Your task to perform on an android device: turn on priority inbox in the gmail app Image 0: 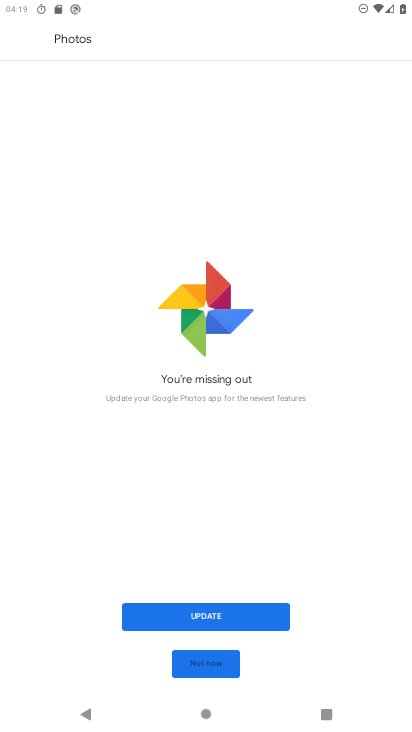
Step 0: press home button
Your task to perform on an android device: turn on priority inbox in the gmail app Image 1: 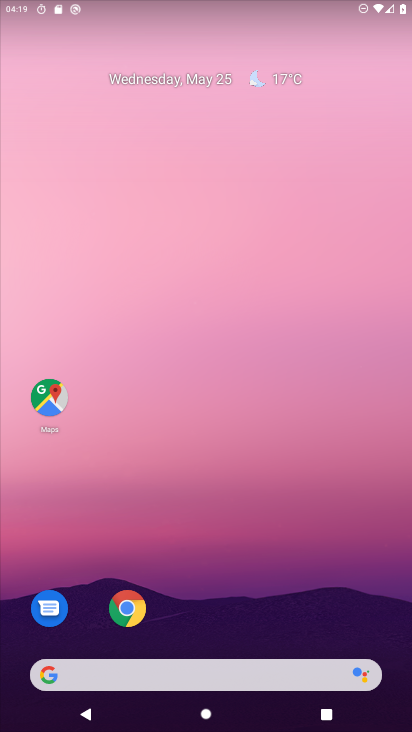
Step 1: drag from (293, 589) to (286, 149)
Your task to perform on an android device: turn on priority inbox in the gmail app Image 2: 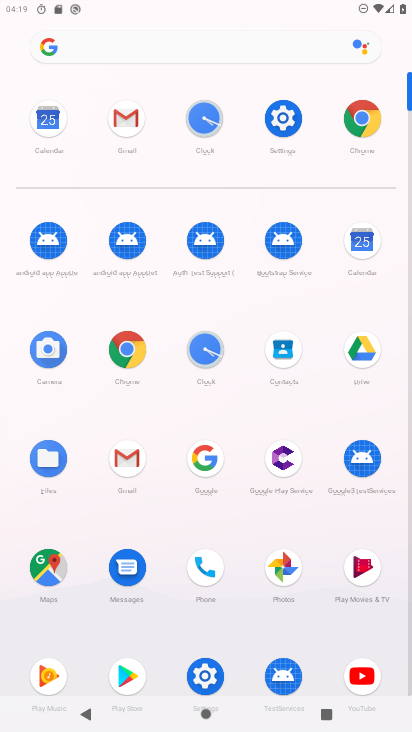
Step 2: click (124, 124)
Your task to perform on an android device: turn on priority inbox in the gmail app Image 3: 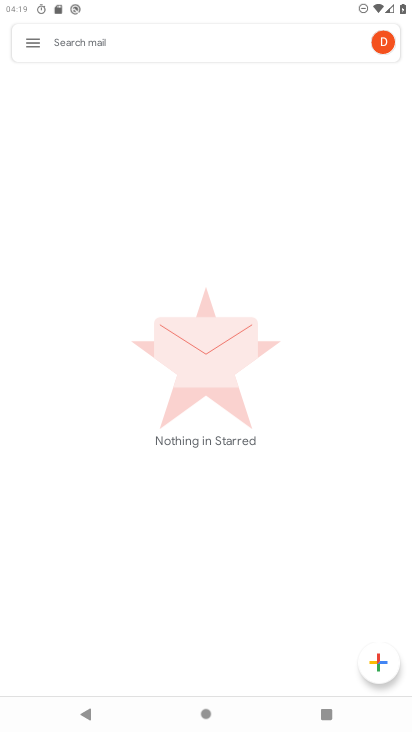
Step 3: click (26, 41)
Your task to perform on an android device: turn on priority inbox in the gmail app Image 4: 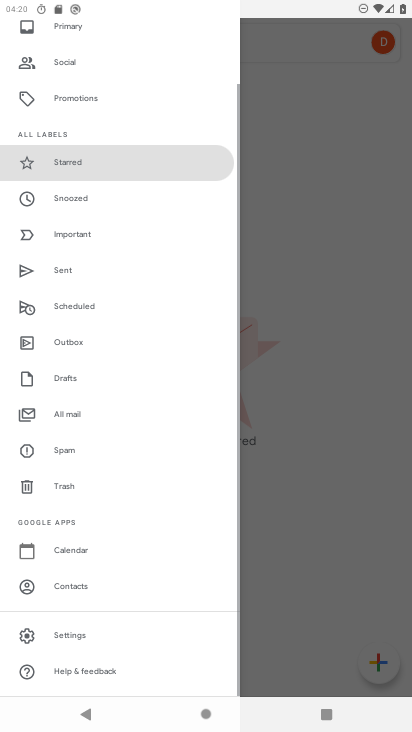
Step 4: click (109, 632)
Your task to perform on an android device: turn on priority inbox in the gmail app Image 5: 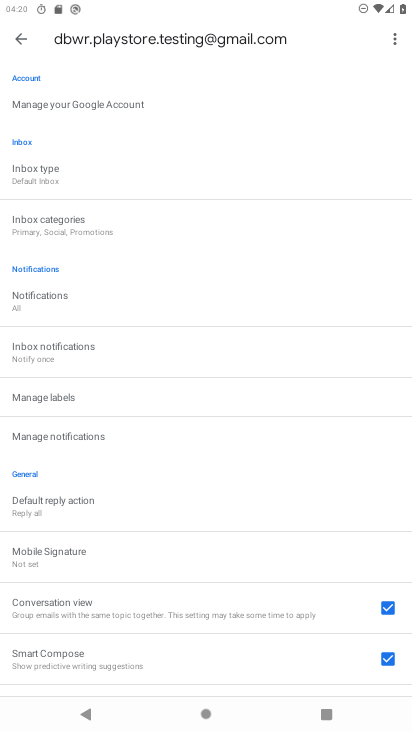
Step 5: drag from (124, 189) to (136, 535)
Your task to perform on an android device: turn on priority inbox in the gmail app Image 6: 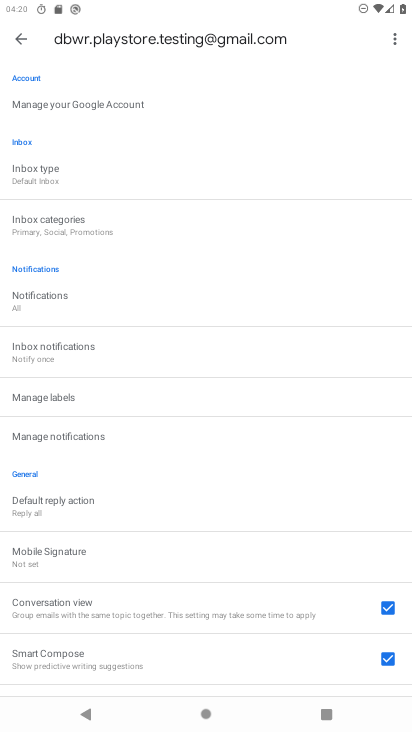
Step 6: click (88, 230)
Your task to perform on an android device: turn on priority inbox in the gmail app Image 7: 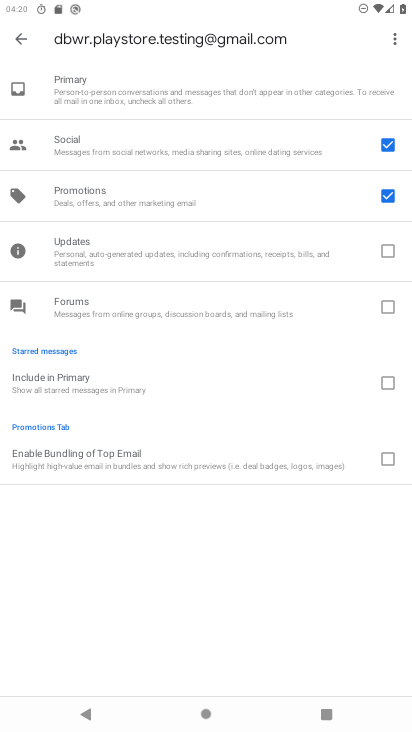
Step 7: click (23, 44)
Your task to perform on an android device: turn on priority inbox in the gmail app Image 8: 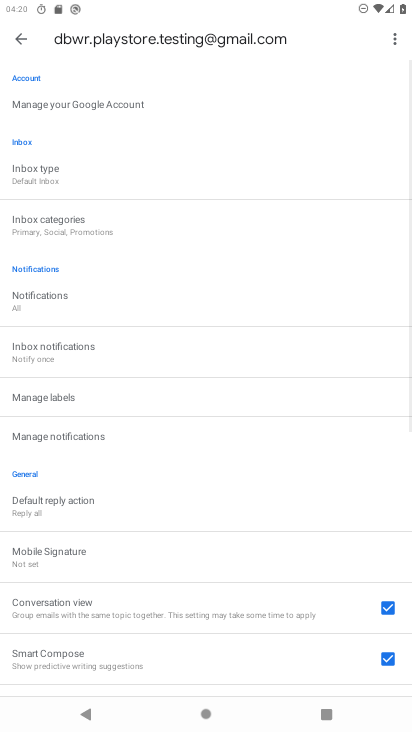
Step 8: click (82, 169)
Your task to perform on an android device: turn on priority inbox in the gmail app Image 9: 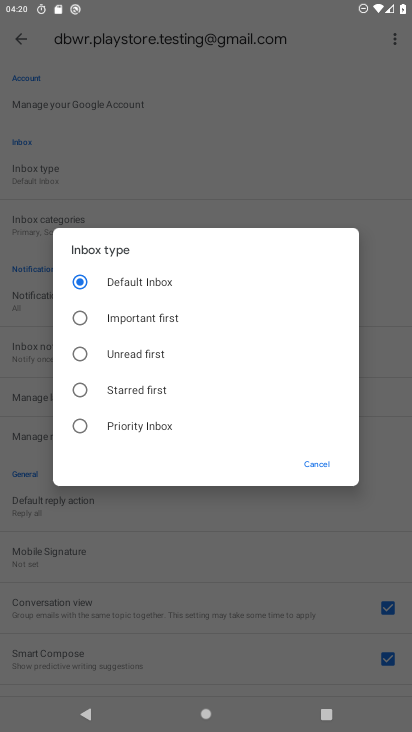
Step 9: task complete